Your task to perform on an android device: Show me productivity apps on the Play Store Image 0: 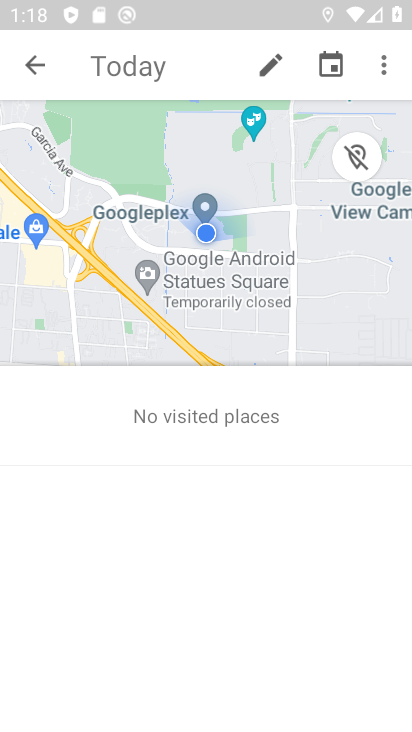
Step 0: press back button
Your task to perform on an android device: Show me productivity apps on the Play Store Image 1: 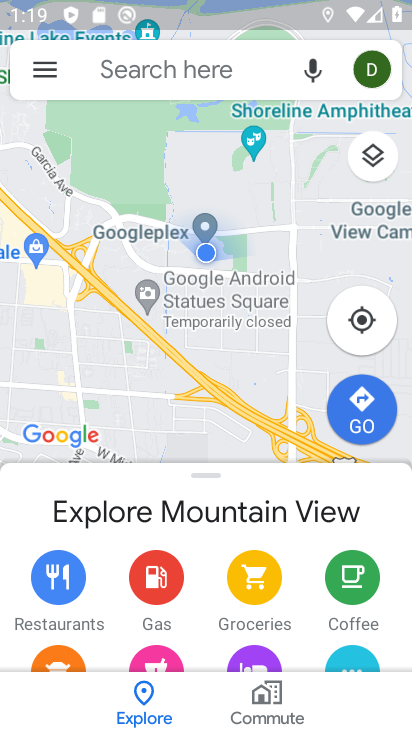
Step 1: press back button
Your task to perform on an android device: Show me productivity apps on the Play Store Image 2: 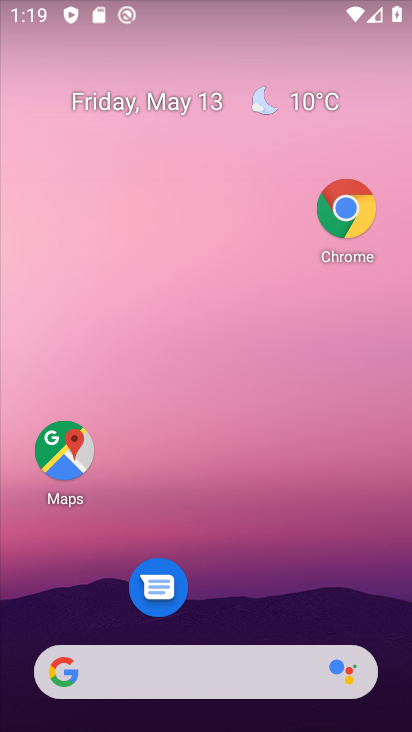
Step 2: drag from (232, 546) to (336, 24)
Your task to perform on an android device: Show me productivity apps on the Play Store Image 3: 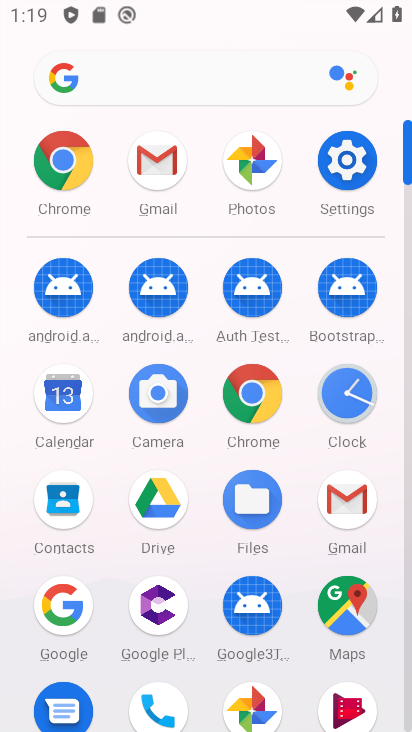
Step 3: drag from (253, 481) to (302, 167)
Your task to perform on an android device: Show me productivity apps on the Play Store Image 4: 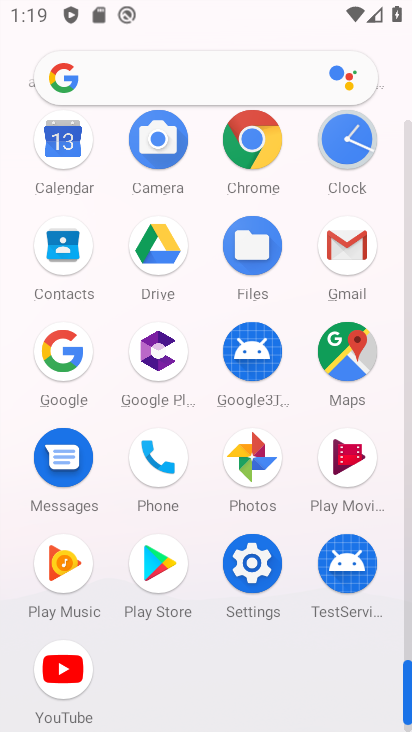
Step 4: click (154, 582)
Your task to perform on an android device: Show me productivity apps on the Play Store Image 5: 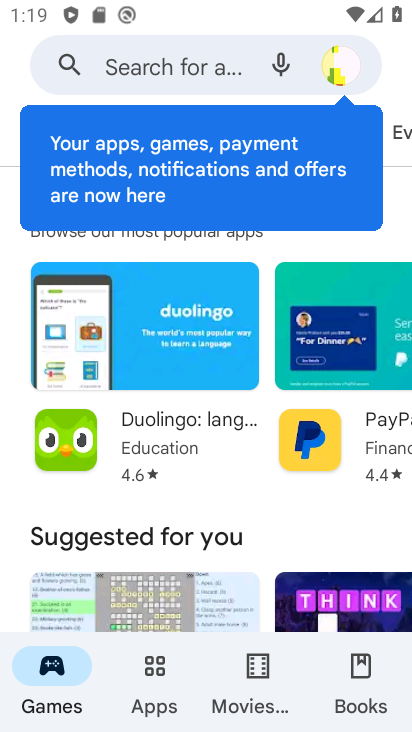
Step 5: click (145, 680)
Your task to perform on an android device: Show me productivity apps on the Play Store Image 6: 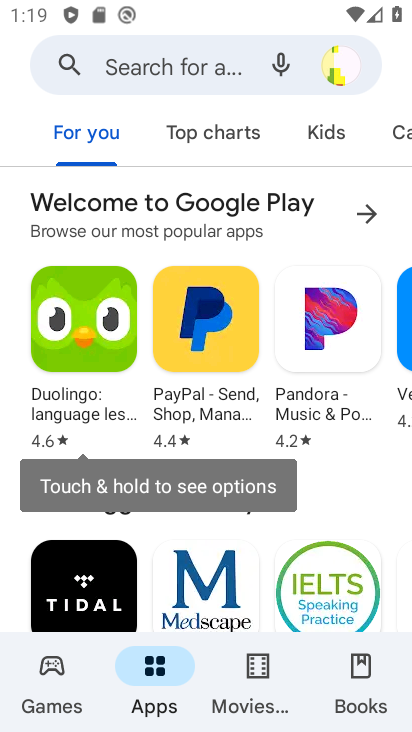
Step 6: drag from (221, 477) to (298, 17)
Your task to perform on an android device: Show me productivity apps on the Play Store Image 7: 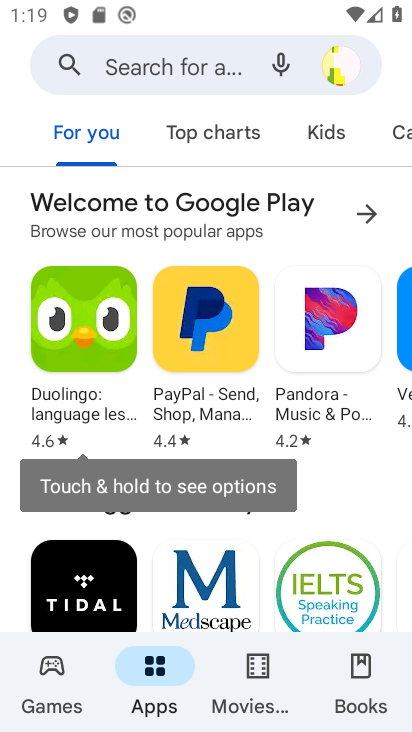
Step 7: drag from (293, 538) to (325, 133)
Your task to perform on an android device: Show me productivity apps on the Play Store Image 8: 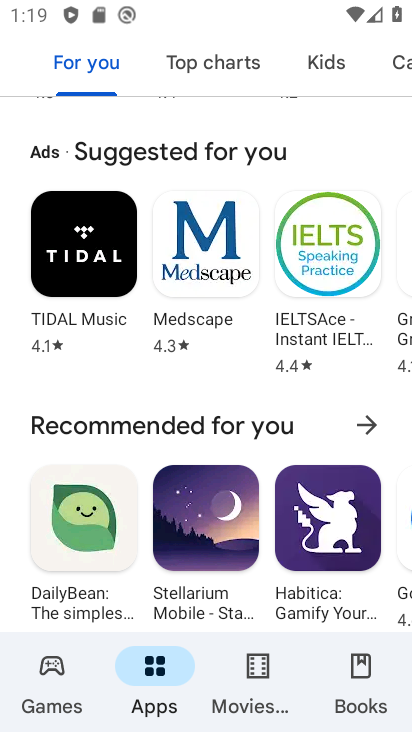
Step 8: drag from (247, 554) to (320, 86)
Your task to perform on an android device: Show me productivity apps on the Play Store Image 9: 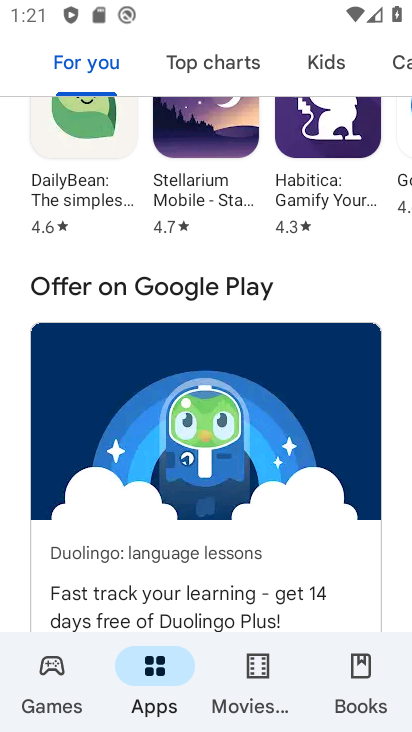
Step 9: drag from (116, 564) to (161, 186)
Your task to perform on an android device: Show me productivity apps on the Play Store Image 10: 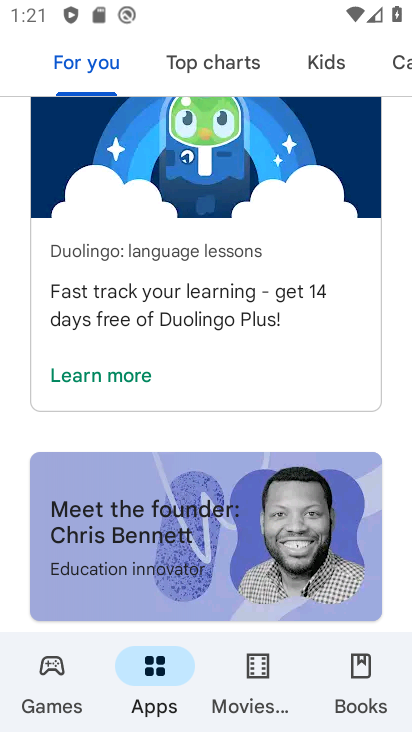
Step 10: drag from (220, 577) to (282, 98)
Your task to perform on an android device: Show me productivity apps on the Play Store Image 11: 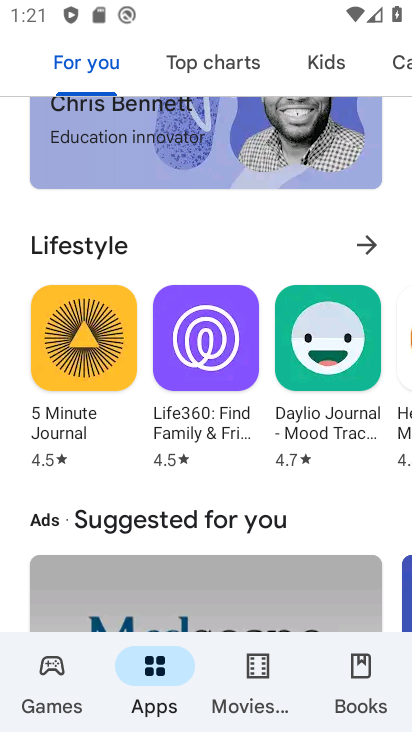
Step 11: drag from (215, 577) to (333, 24)
Your task to perform on an android device: Show me productivity apps on the Play Store Image 12: 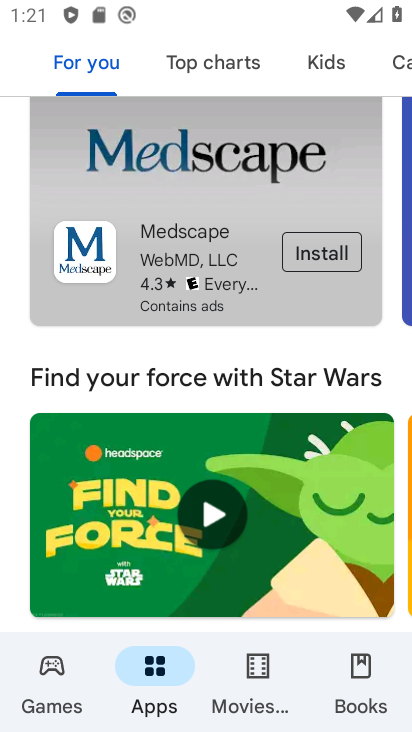
Step 12: drag from (205, 511) to (292, 29)
Your task to perform on an android device: Show me productivity apps on the Play Store Image 13: 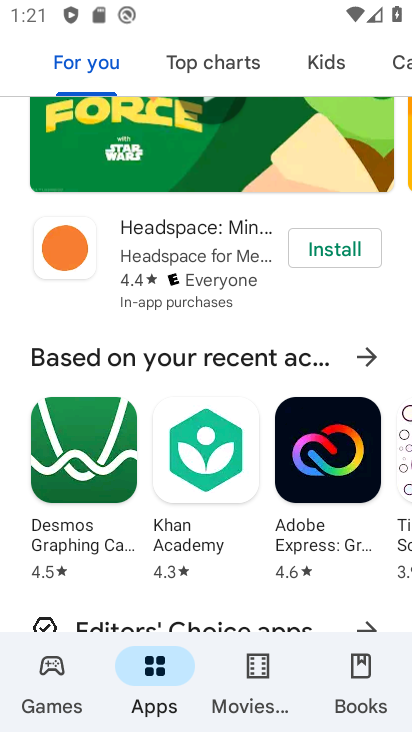
Step 13: drag from (210, 508) to (294, 119)
Your task to perform on an android device: Show me productivity apps on the Play Store Image 14: 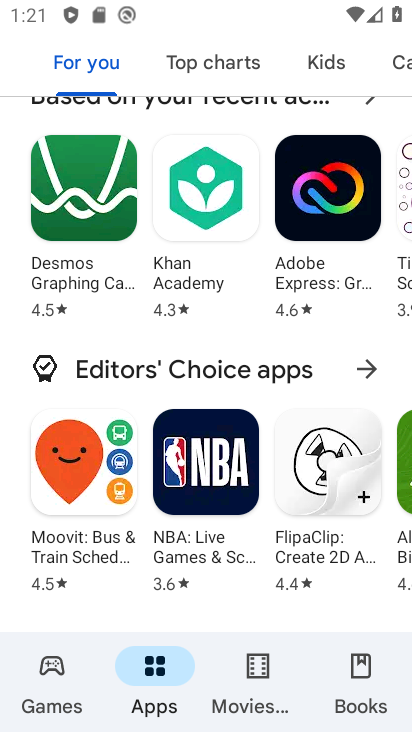
Step 14: drag from (167, 515) to (287, 13)
Your task to perform on an android device: Show me productivity apps on the Play Store Image 15: 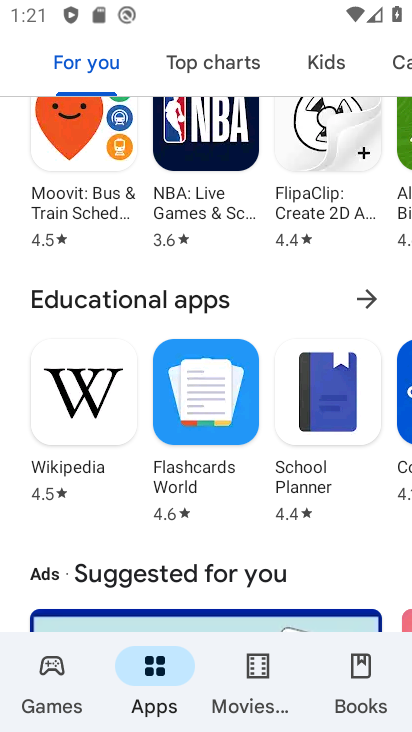
Step 15: drag from (146, 500) to (254, 16)
Your task to perform on an android device: Show me productivity apps on the Play Store Image 16: 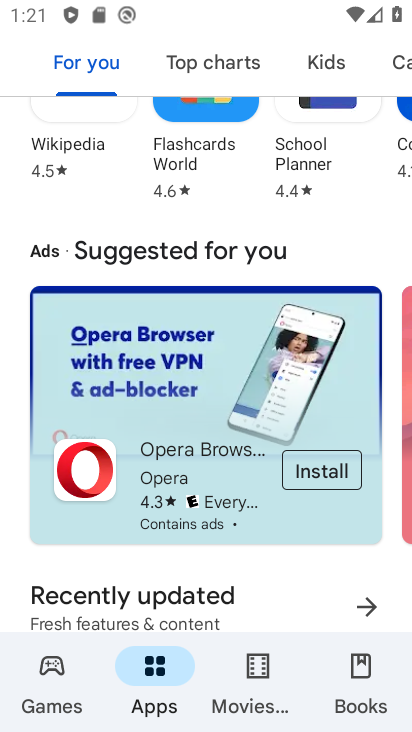
Step 16: drag from (158, 580) to (302, 29)
Your task to perform on an android device: Show me productivity apps on the Play Store Image 17: 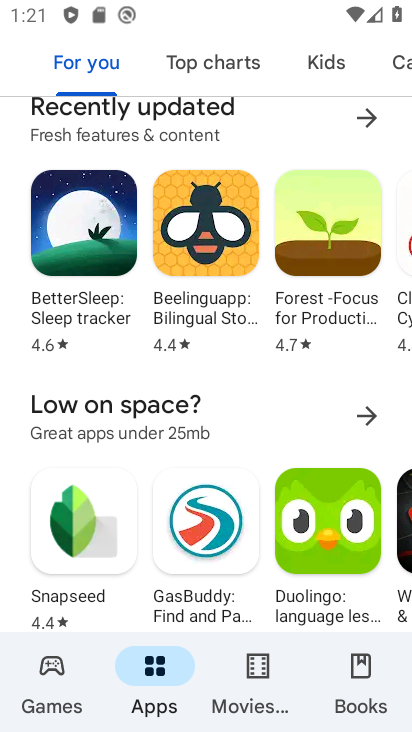
Step 17: drag from (166, 565) to (285, 10)
Your task to perform on an android device: Show me productivity apps on the Play Store Image 18: 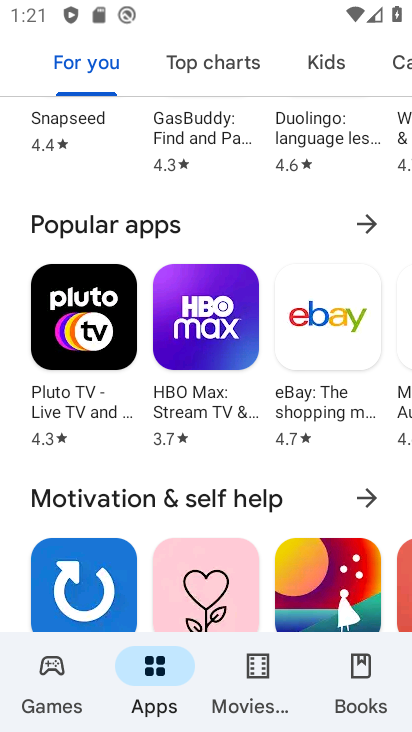
Step 18: drag from (204, 562) to (319, 24)
Your task to perform on an android device: Show me productivity apps on the Play Store Image 19: 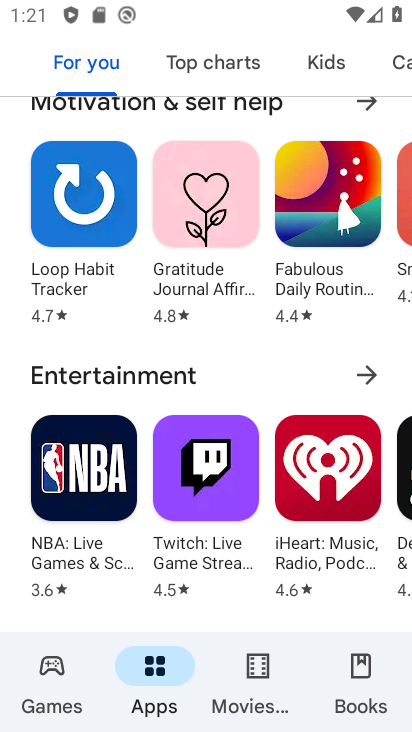
Step 19: drag from (183, 496) to (287, 36)
Your task to perform on an android device: Show me productivity apps on the Play Store Image 20: 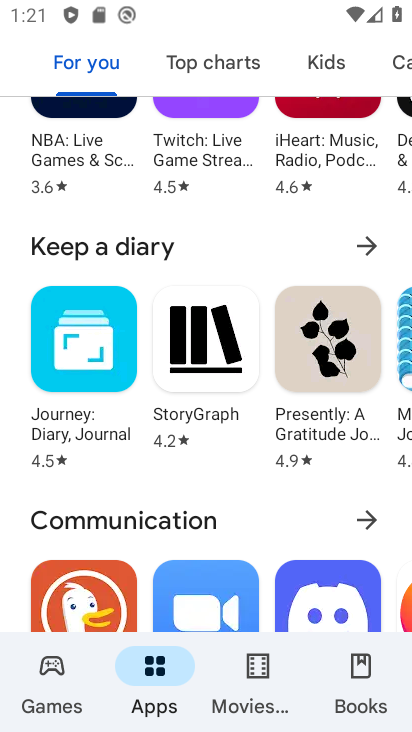
Step 20: drag from (176, 576) to (308, 14)
Your task to perform on an android device: Show me productivity apps on the Play Store Image 21: 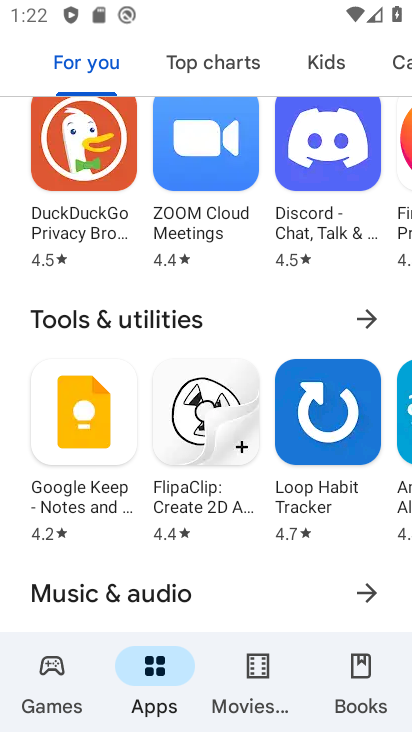
Step 21: drag from (135, 580) to (279, 2)
Your task to perform on an android device: Show me productivity apps on the Play Store Image 22: 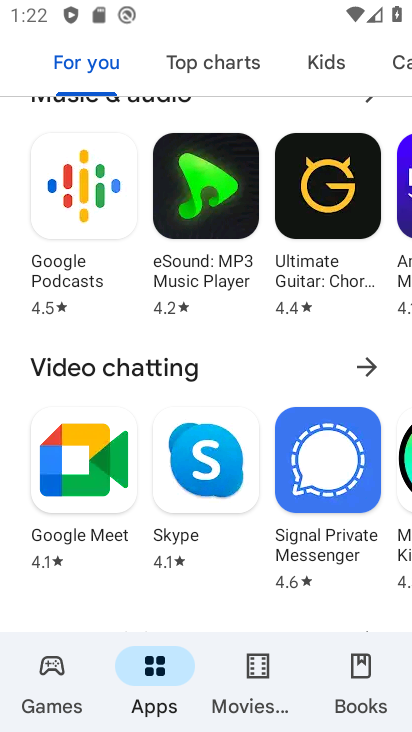
Step 22: drag from (166, 518) to (236, 15)
Your task to perform on an android device: Show me productivity apps on the Play Store Image 23: 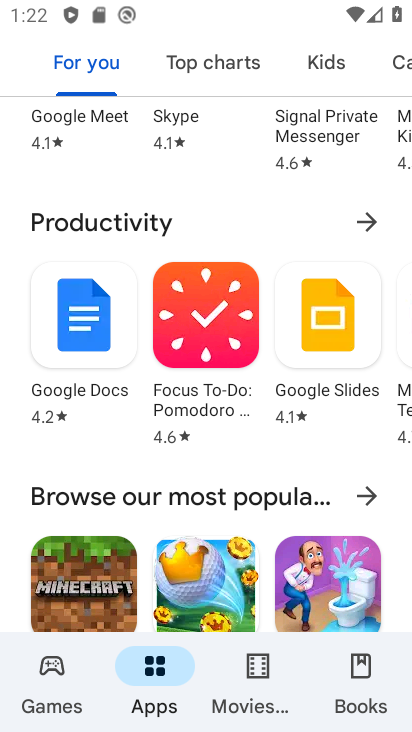
Step 23: click (369, 210)
Your task to perform on an android device: Show me productivity apps on the Play Store Image 24: 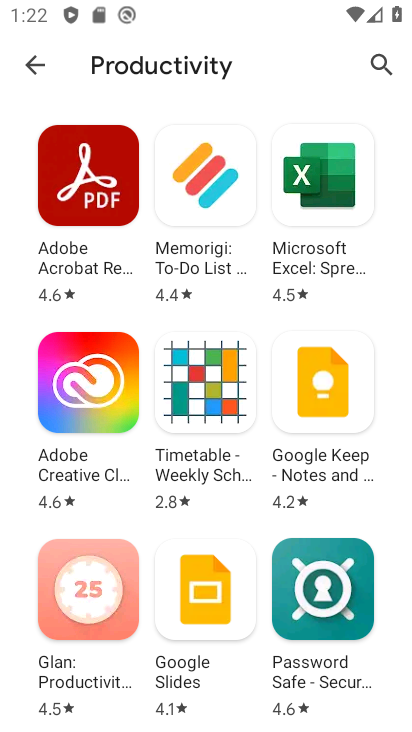
Step 24: task complete